Your task to perform on an android device: add a label to a message in the gmail app Image 0: 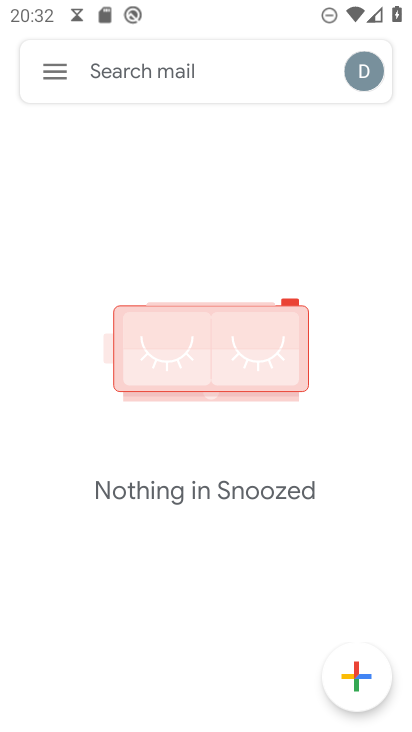
Step 0: press home button
Your task to perform on an android device: add a label to a message in the gmail app Image 1: 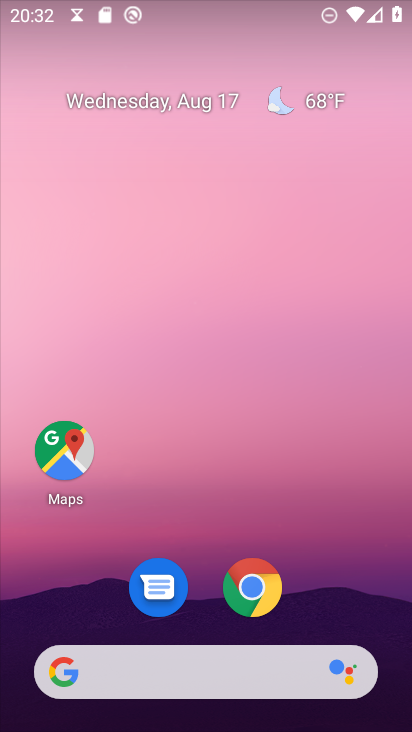
Step 1: drag from (22, 700) to (205, 233)
Your task to perform on an android device: add a label to a message in the gmail app Image 2: 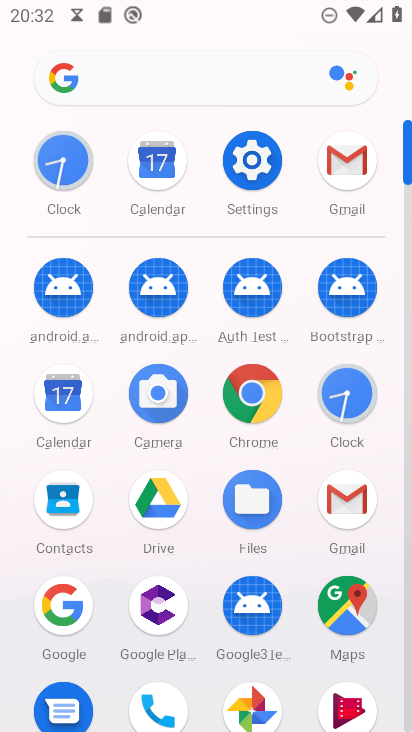
Step 2: click (336, 163)
Your task to perform on an android device: add a label to a message in the gmail app Image 3: 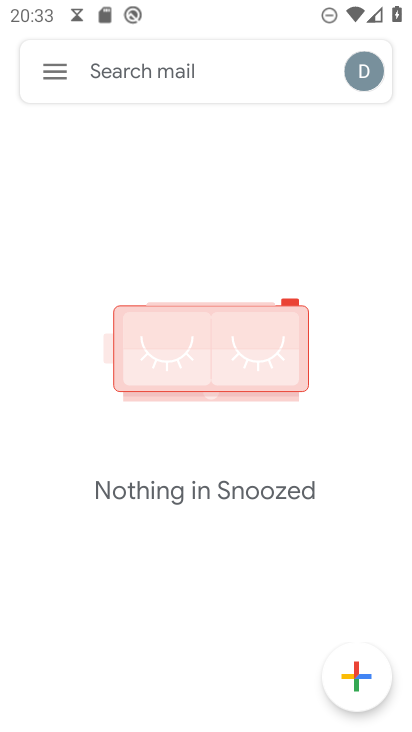
Step 3: task complete